Your task to perform on an android device: turn on the 12-hour format for clock Image 0: 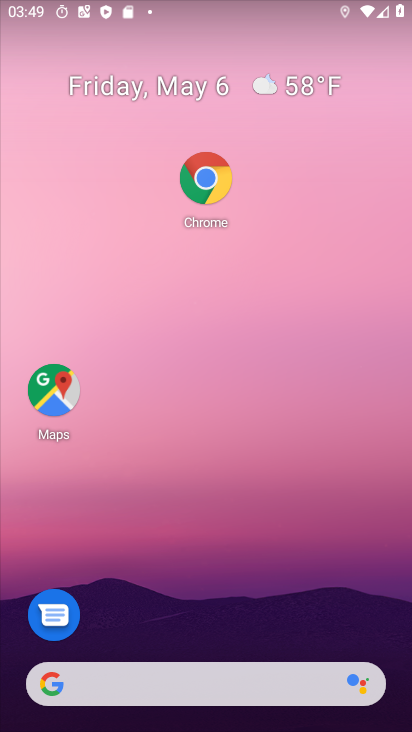
Step 0: drag from (250, 653) to (125, 298)
Your task to perform on an android device: turn on the 12-hour format for clock Image 1: 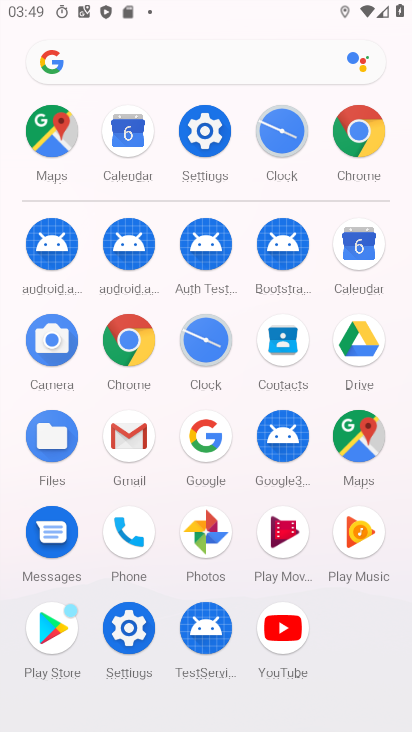
Step 1: click (206, 341)
Your task to perform on an android device: turn on the 12-hour format for clock Image 2: 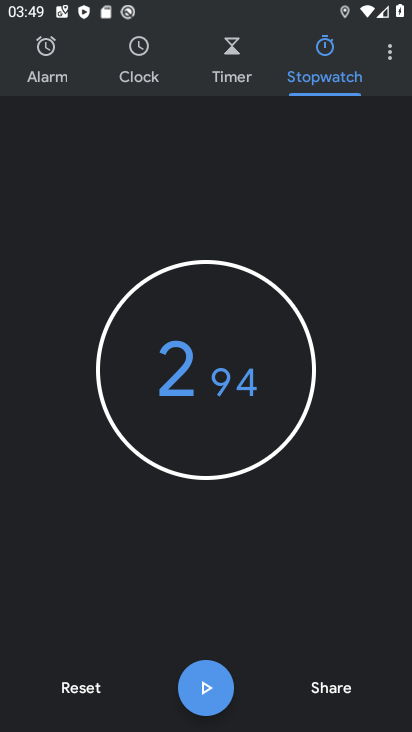
Step 2: click (206, 341)
Your task to perform on an android device: turn on the 12-hour format for clock Image 3: 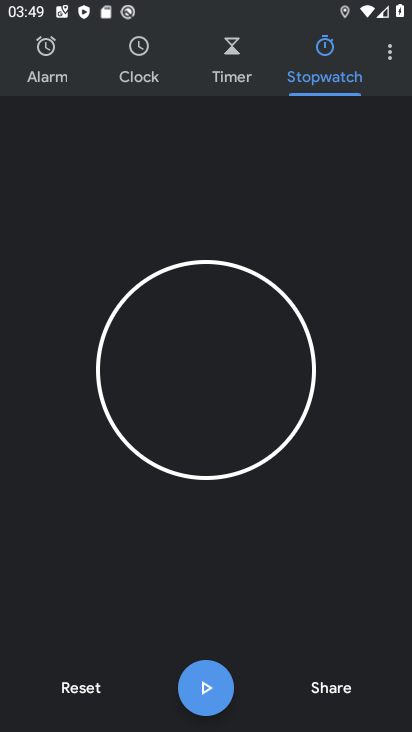
Step 3: click (206, 341)
Your task to perform on an android device: turn on the 12-hour format for clock Image 4: 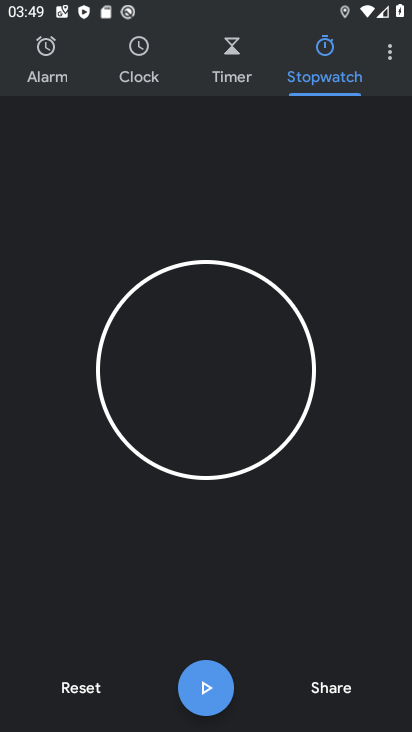
Step 4: click (389, 52)
Your task to perform on an android device: turn on the 12-hour format for clock Image 5: 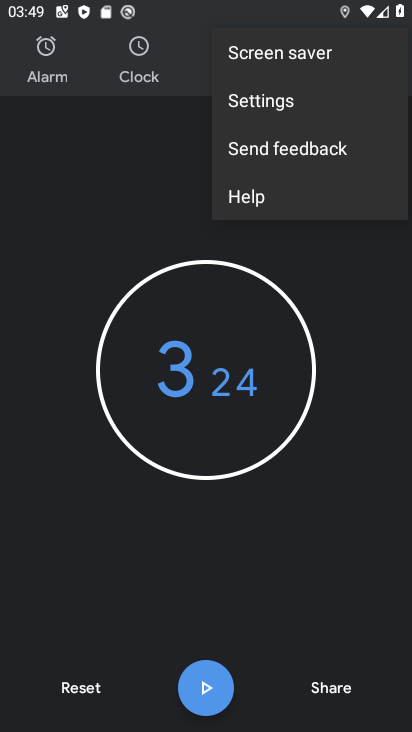
Step 5: click (269, 104)
Your task to perform on an android device: turn on the 12-hour format for clock Image 6: 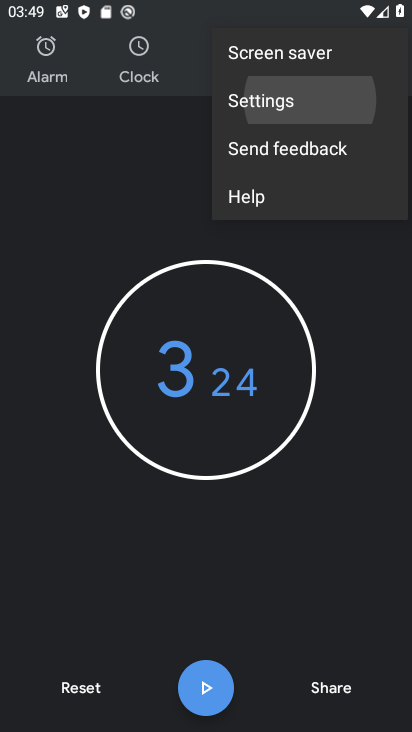
Step 6: click (269, 104)
Your task to perform on an android device: turn on the 12-hour format for clock Image 7: 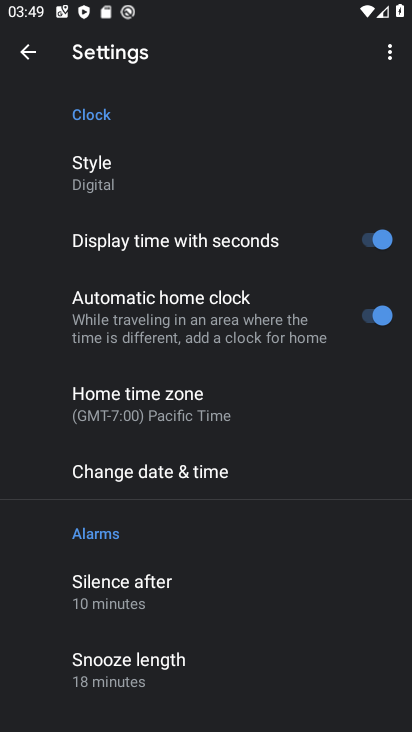
Step 7: click (142, 476)
Your task to perform on an android device: turn on the 12-hour format for clock Image 8: 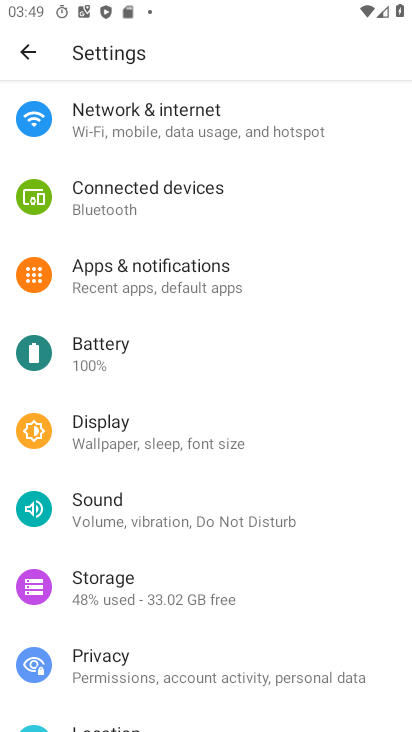
Step 8: click (25, 51)
Your task to perform on an android device: turn on the 12-hour format for clock Image 9: 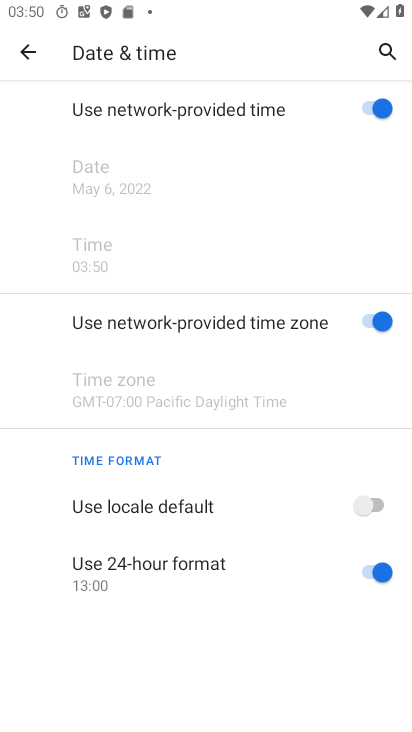
Step 9: click (360, 497)
Your task to perform on an android device: turn on the 12-hour format for clock Image 10: 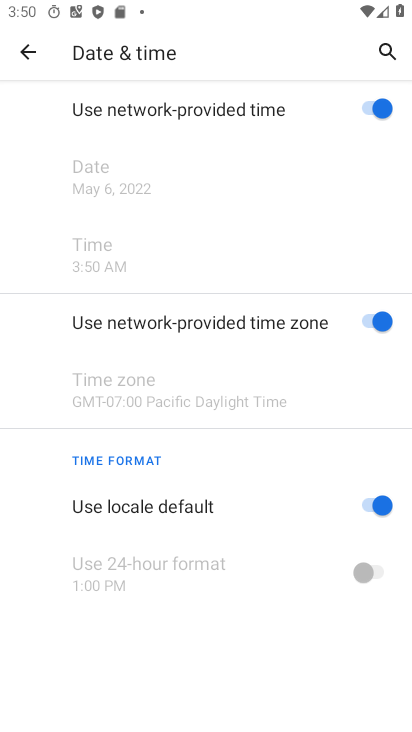
Step 10: task complete